Your task to perform on an android device: turn on wifi Image 0: 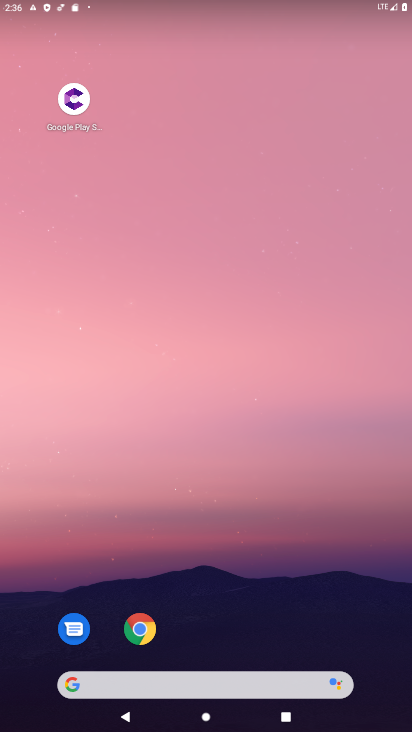
Step 0: drag from (216, 663) to (247, 111)
Your task to perform on an android device: turn on wifi Image 1: 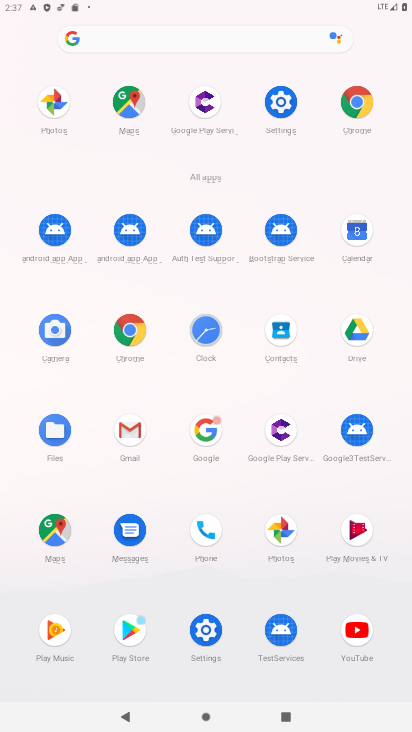
Step 1: click (211, 642)
Your task to perform on an android device: turn on wifi Image 2: 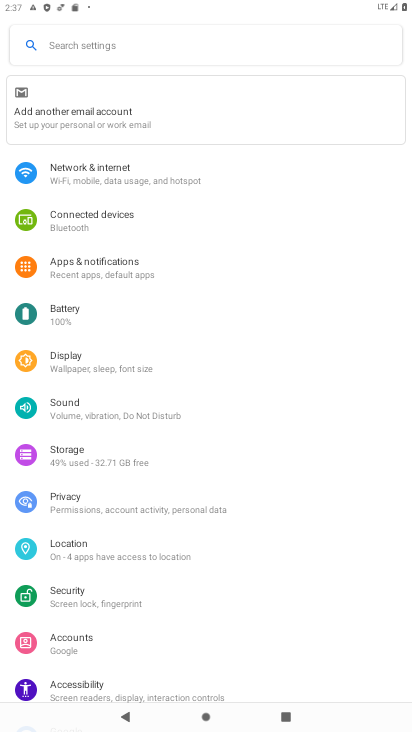
Step 2: click (181, 182)
Your task to perform on an android device: turn on wifi Image 3: 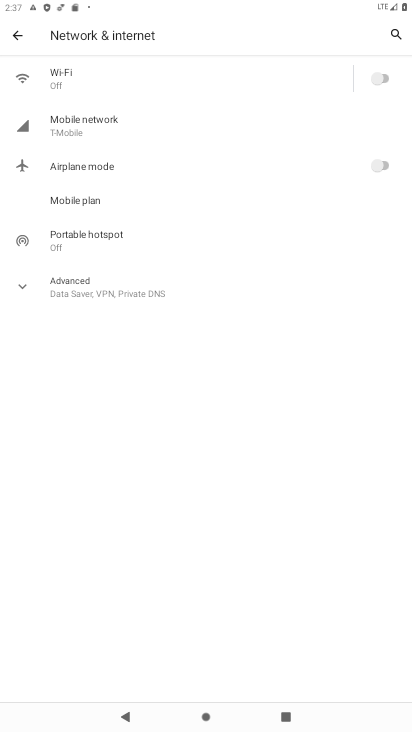
Step 3: click (392, 74)
Your task to perform on an android device: turn on wifi Image 4: 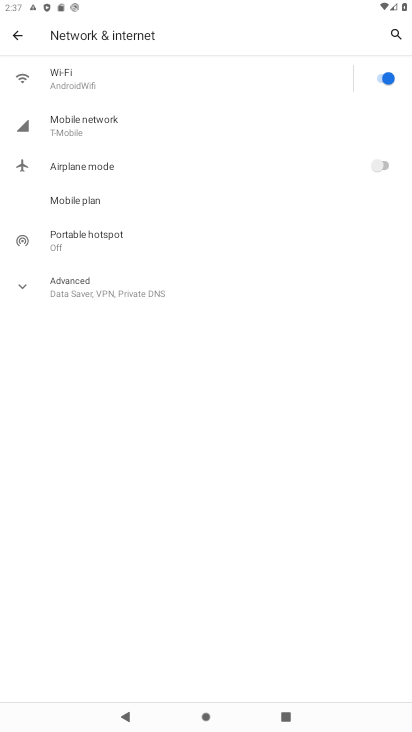
Step 4: task complete